Your task to perform on an android device: set default search engine in the chrome app Image 0: 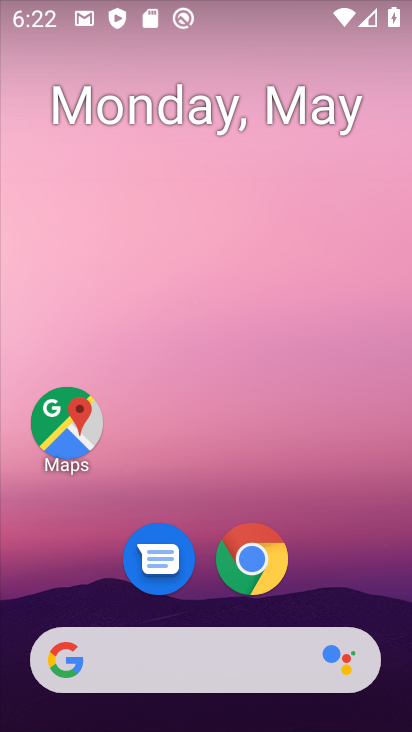
Step 0: drag from (382, 625) to (321, 0)
Your task to perform on an android device: set default search engine in the chrome app Image 1: 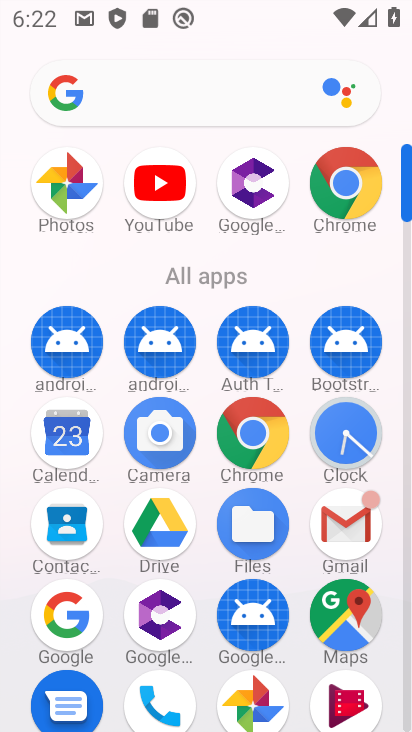
Step 1: click (323, 201)
Your task to perform on an android device: set default search engine in the chrome app Image 2: 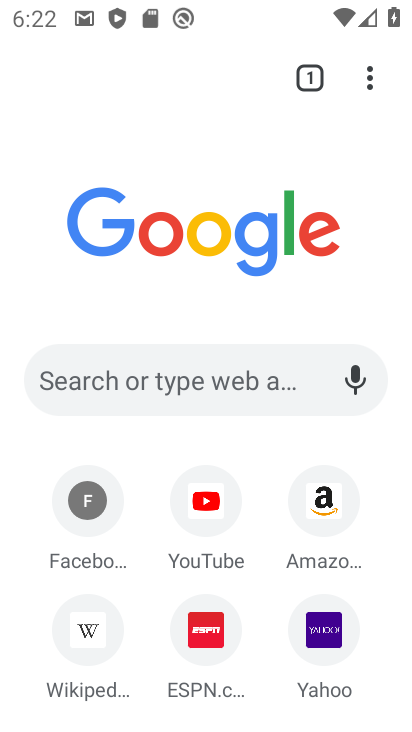
Step 2: click (381, 72)
Your task to perform on an android device: set default search engine in the chrome app Image 3: 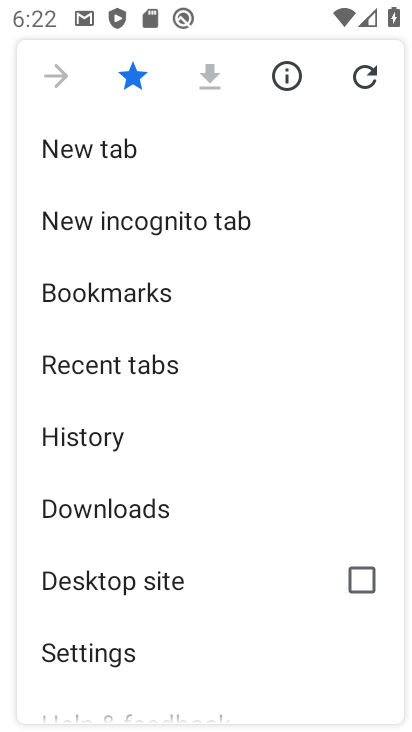
Step 3: click (120, 677)
Your task to perform on an android device: set default search engine in the chrome app Image 4: 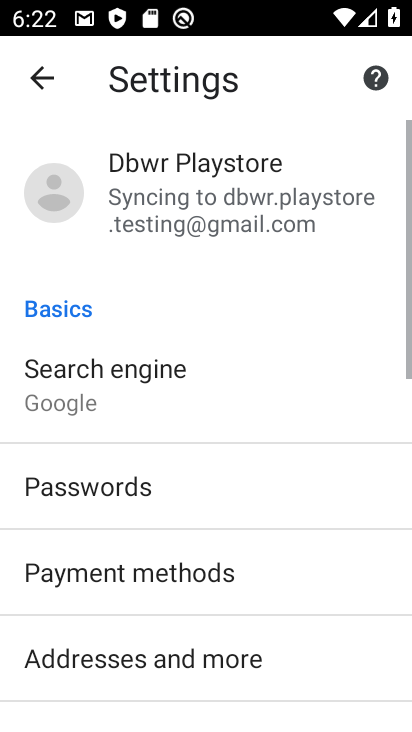
Step 4: click (219, 398)
Your task to perform on an android device: set default search engine in the chrome app Image 5: 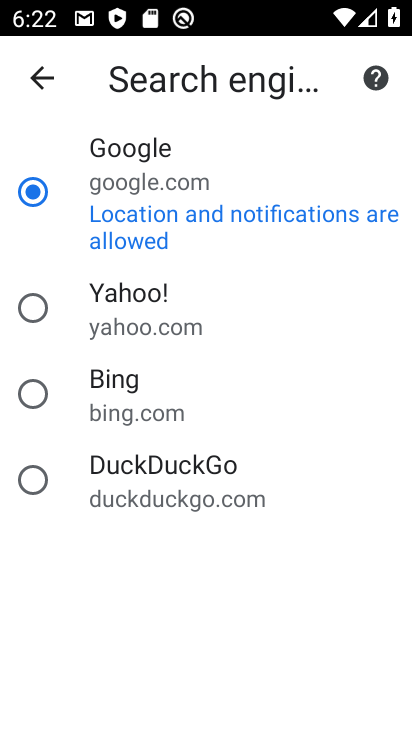
Step 5: click (146, 387)
Your task to perform on an android device: set default search engine in the chrome app Image 6: 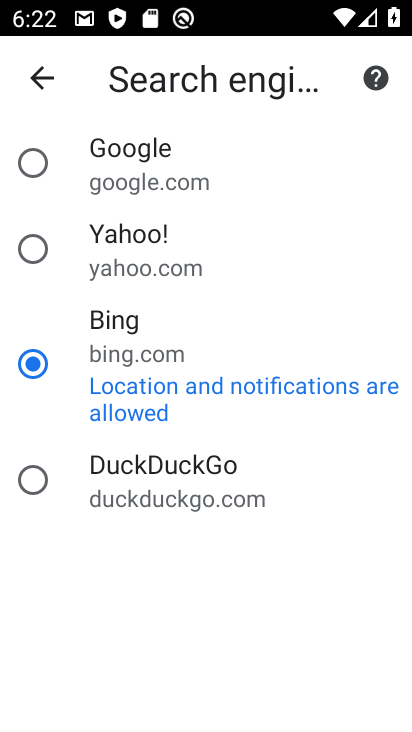
Step 6: task complete